Your task to perform on an android device: Open notification settings Image 0: 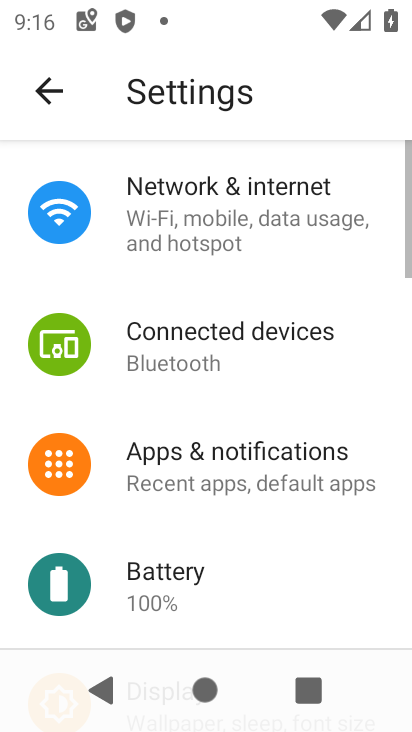
Step 0: press home button
Your task to perform on an android device: Open notification settings Image 1: 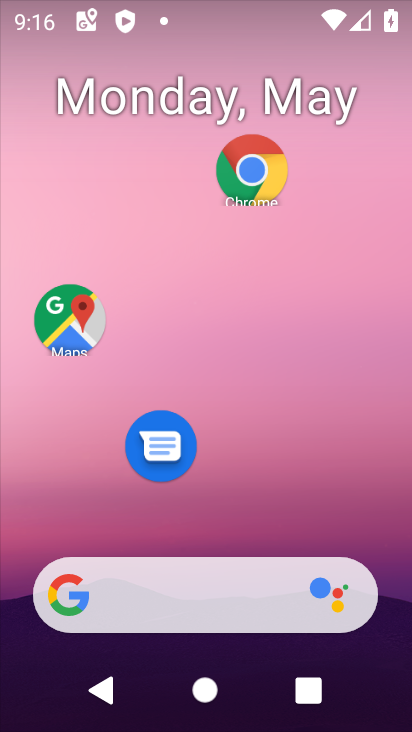
Step 1: drag from (221, 526) to (240, 57)
Your task to perform on an android device: Open notification settings Image 2: 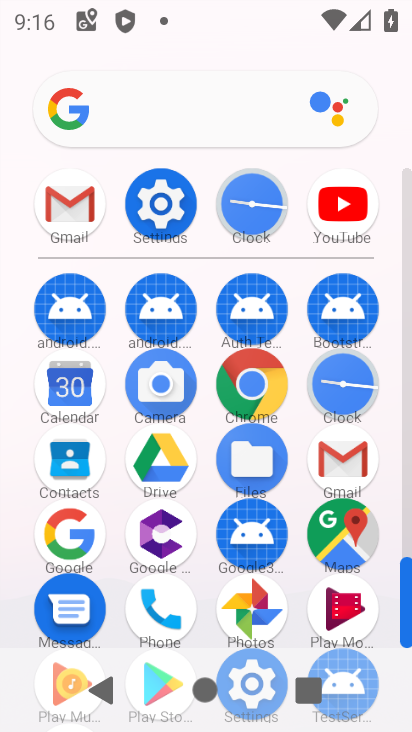
Step 2: click (162, 200)
Your task to perform on an android device: Open notification settings Image 3: 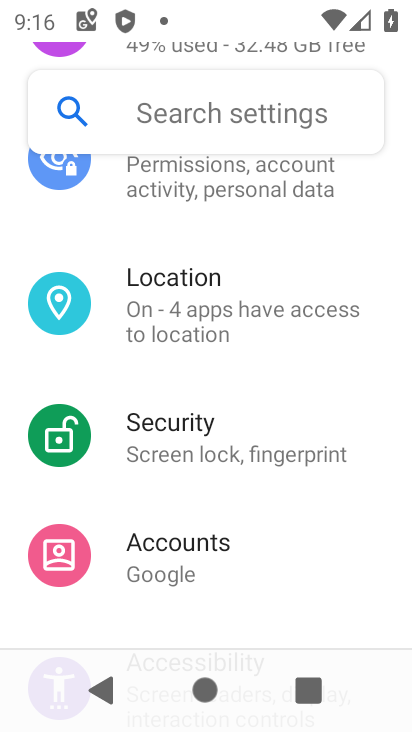
Step 3: drag from (224, 219) to (249, 695)
Your task to perform on an android device: Open notification settings Image 4: 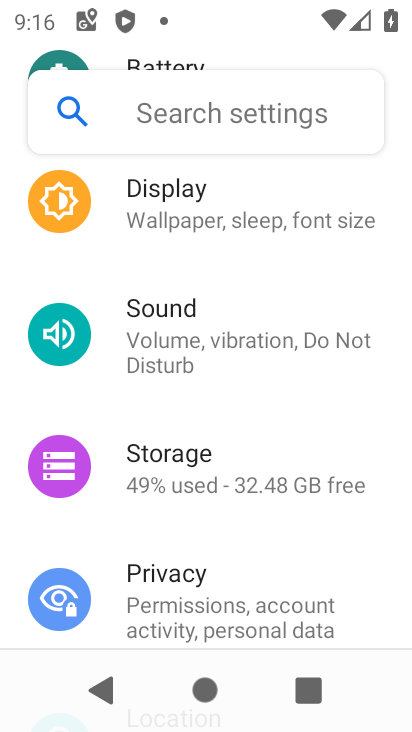
Step 4: drag from (240, 196) to (222, 624)
Your task to perform on an android device: Open notification settings Image 5: 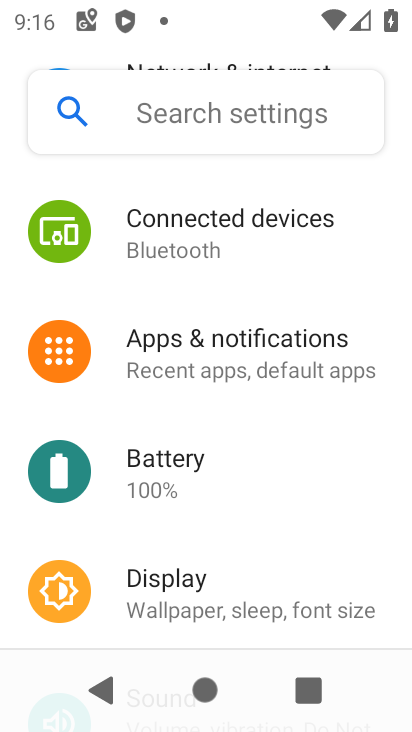
Step 5: click (291, 344)
Your task to perform on an android device: Open notification settings Image 6: 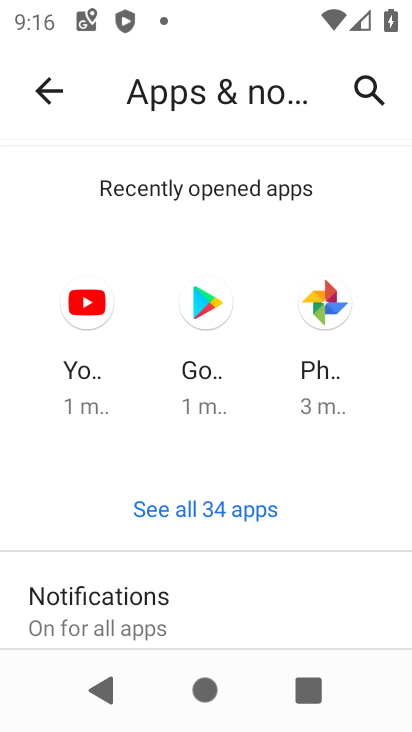
Step 6: click (190, 605)
Your task to perform on an android device: Open notification settings Image 7: 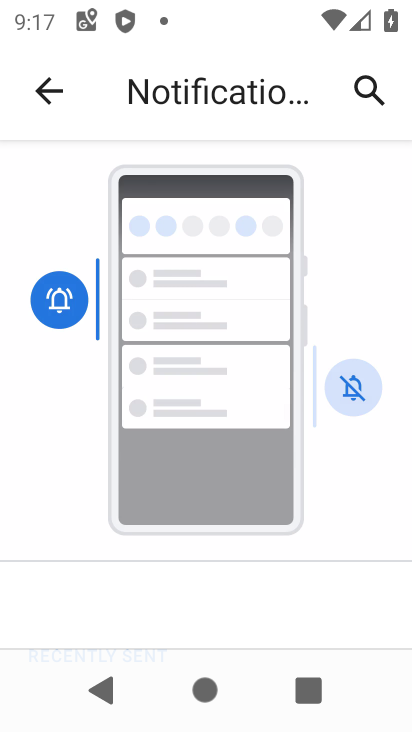
Step 7: drag from (241, 635) to (243, 206)
Your task to perform on an android device: Open notification settings Image 8: 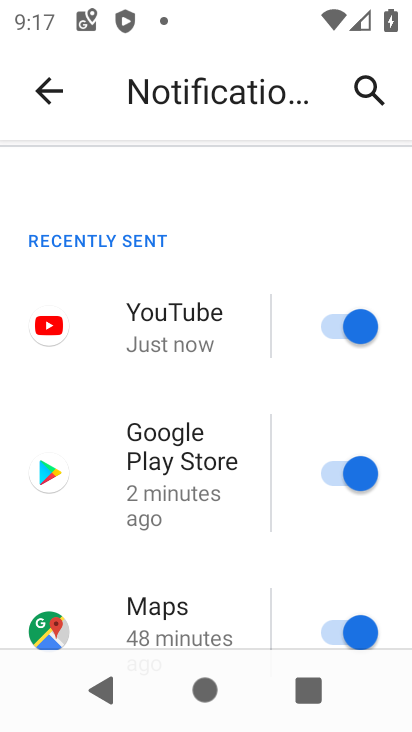
Step 8: drag from (242, 600) to (251, 161)
Your task to perform on an android device: Open notification settings Image 9: 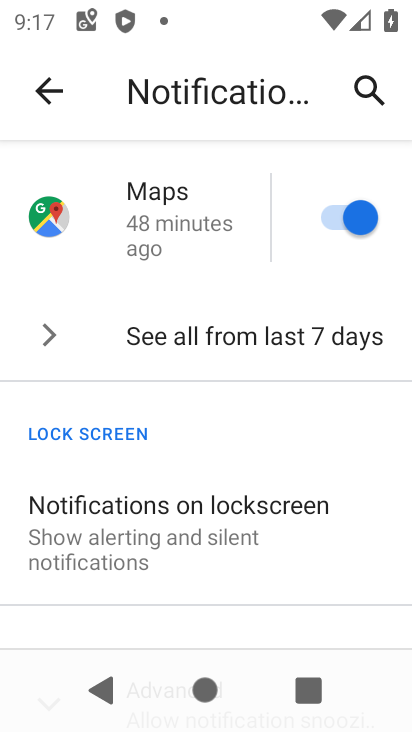
Step 9: drag from (238, 567) to (264, 242)
Your task to perform on an android device: Open notification settings Image 10: 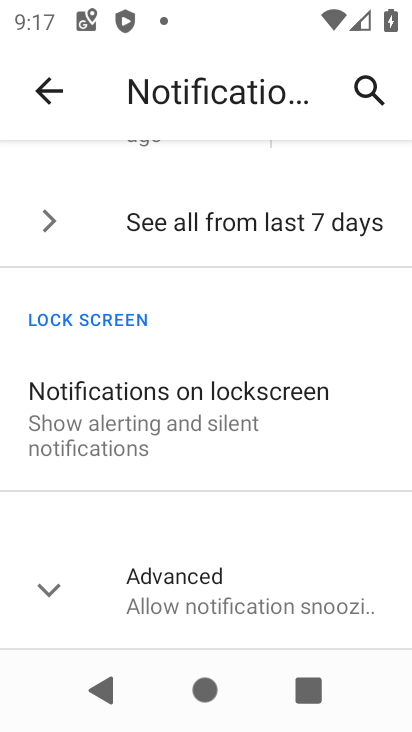
Step 10: click (31, 579)
Your task to perform on an android device: Open notification settings Image 11: 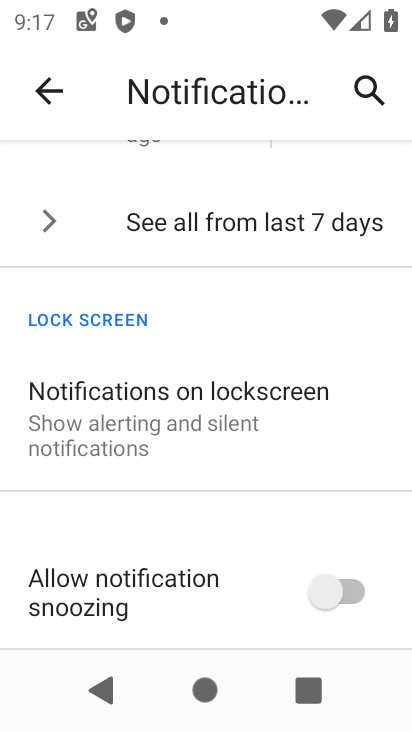
Step 11: drag from (212, 601) to (254, 196)
Your task to perform on an android device: Open notification settings Image 12: 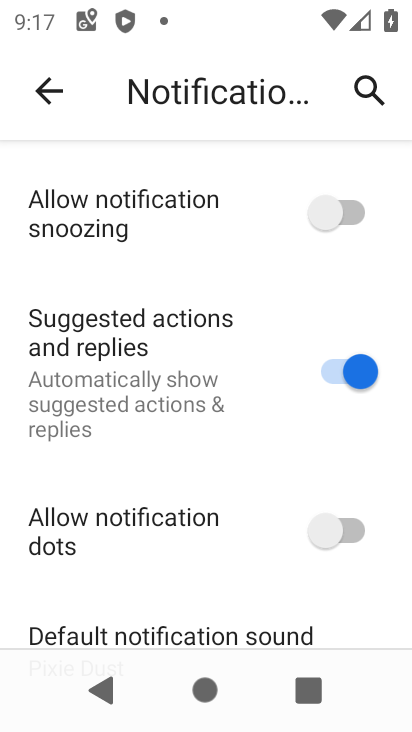
Step 12: click (352, 532)
Your task to perform on an android device: Open notification settings Image 13: 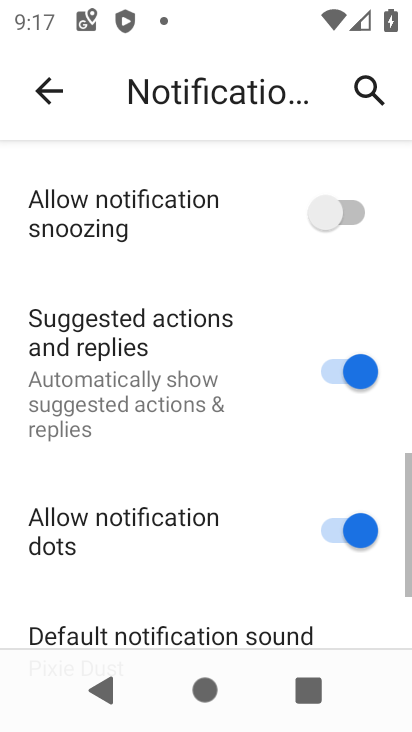
Step 13: click (339, 216)
Your task to perform on an android device: Open notification settings Image 14: 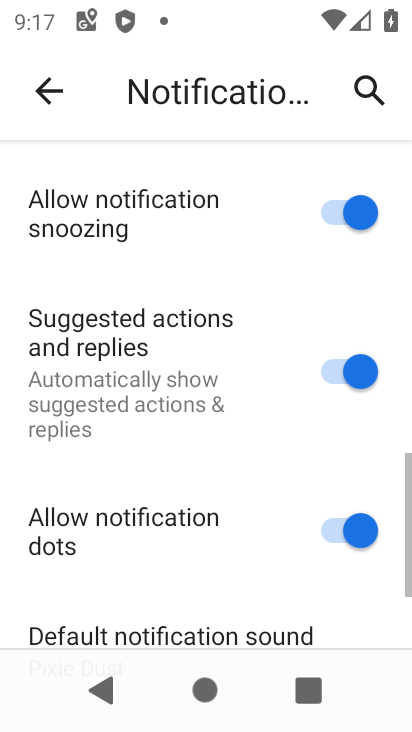
Step 14: drag from (231, 230) to (230, 620)
Your task to perform on an android device: Open notification settings Image 15: 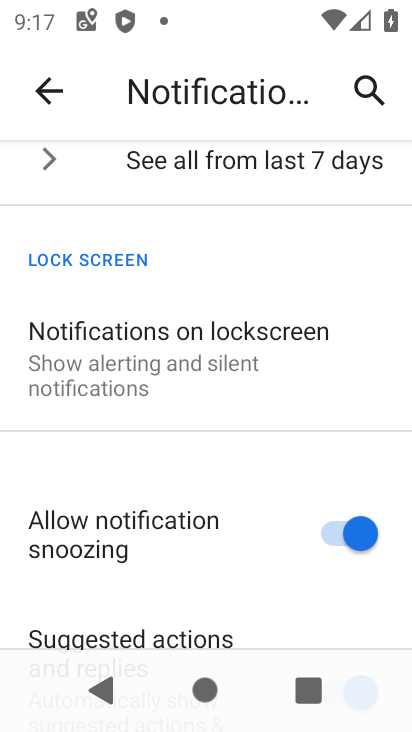
Step 15: drag from (236, 233) to (256, 554)
Your task to perform on an android device: Open notification settings Image 16: 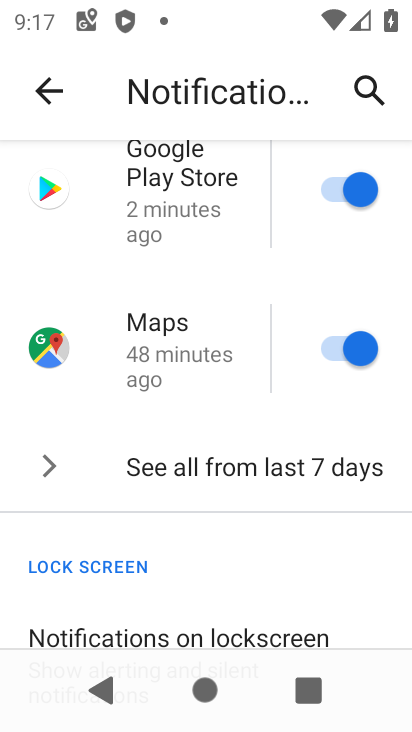
Step 16: click (335, 337)
Your task to perform on an android device: Open notification settings Image 17: 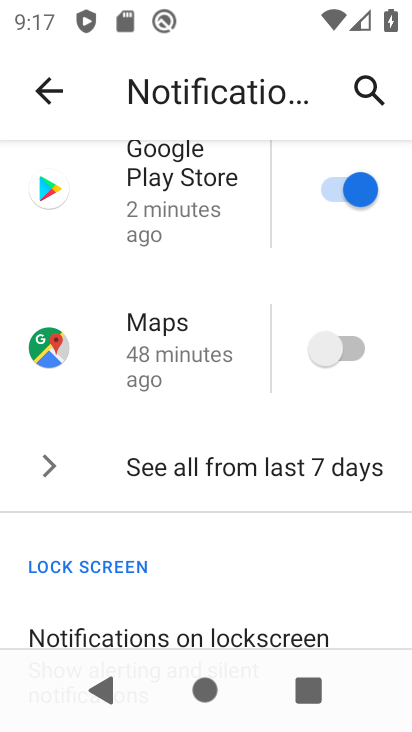
Step 17: click (341, 170)
Your task to perform on an android device: Open notification settings Image 18: 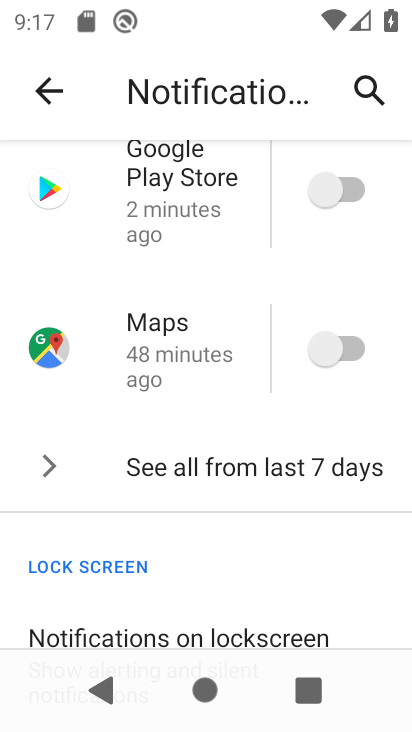
Step 18: task complete